Your task to perform on an android device: install app "PlayWell" Image 0: 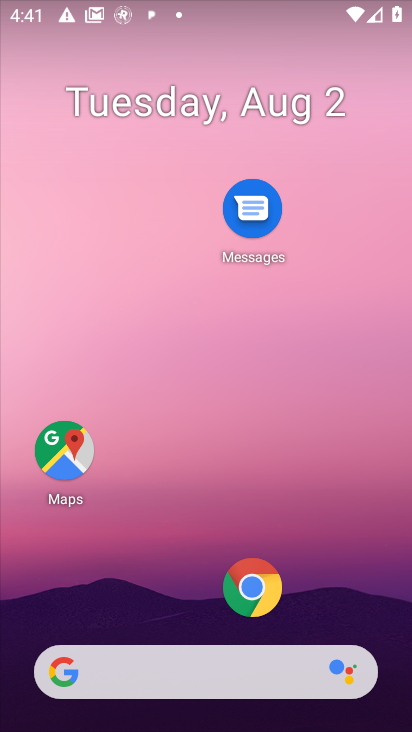
Step 0: drag from (172, 589) to (182, 277)
Your task to perform on an android device: install app "PlayWell" Image 1: 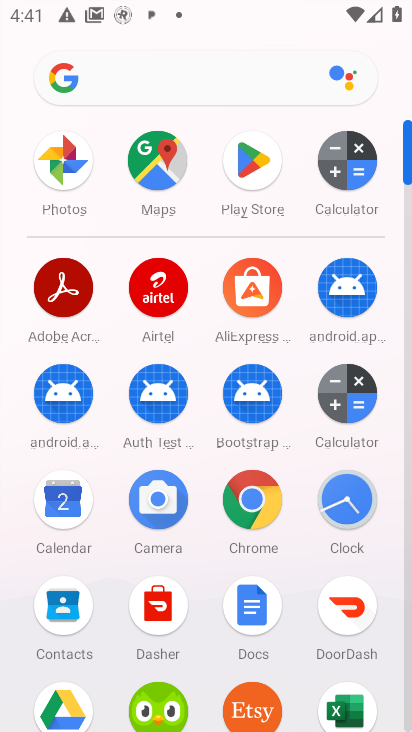
Step 1: click (231, 168)
Your task to perform on an android device: install app "PlayWell" Image 2: 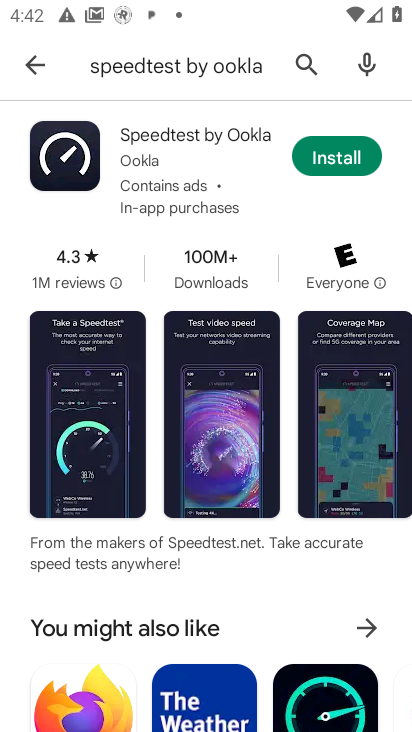
Step 2: click (299, 49)
Your task to perform on an android device: install app "PlayWell" Image 3: 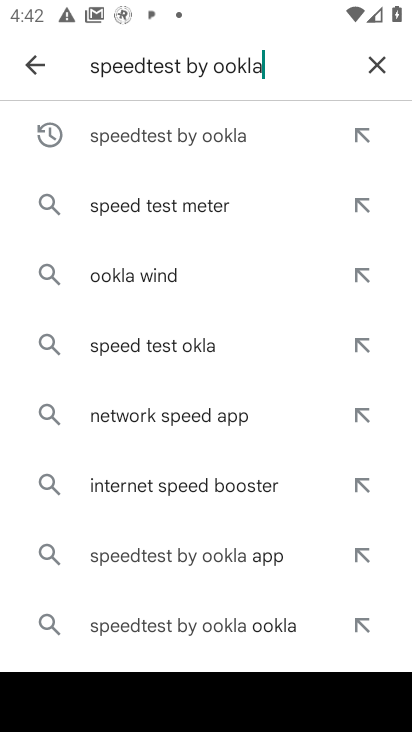
Step 3: click (366, 69)
Your task to perform on an android device: install app "PlayWell" Image 4: 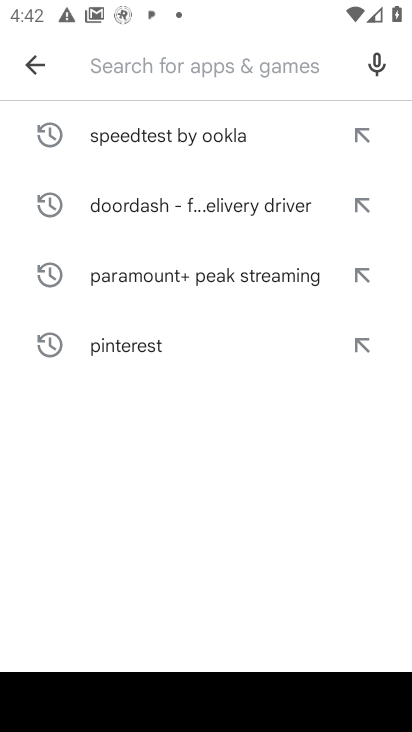
Step 4: type "PlayWell"
Your task to perform on an android device: install app "PlayWell" Image 5: 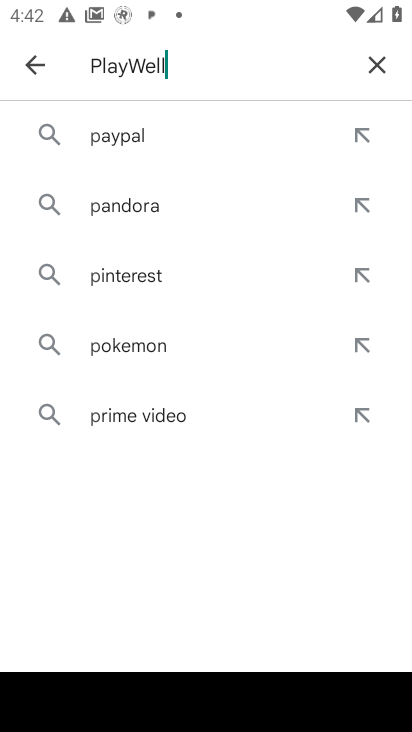
Step 5: type ""
Your task to perform on an android device: install app "PlayWell" Image 6: 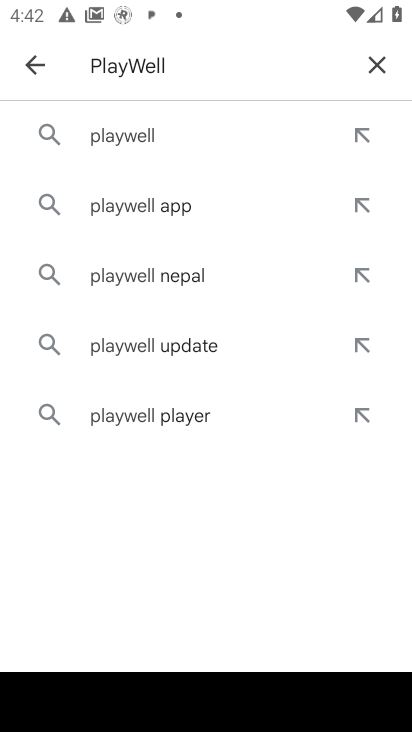
Step 6: click (95, 135)
Your task to perform on an android device: install app "PlayWell" Image 7: 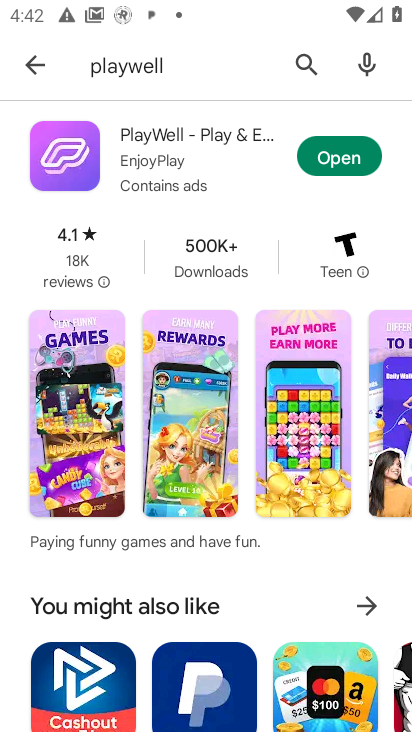
Step 7: task complete